Your task to perform on an android device: remove spam from my inbox in the gmail app Image 0: 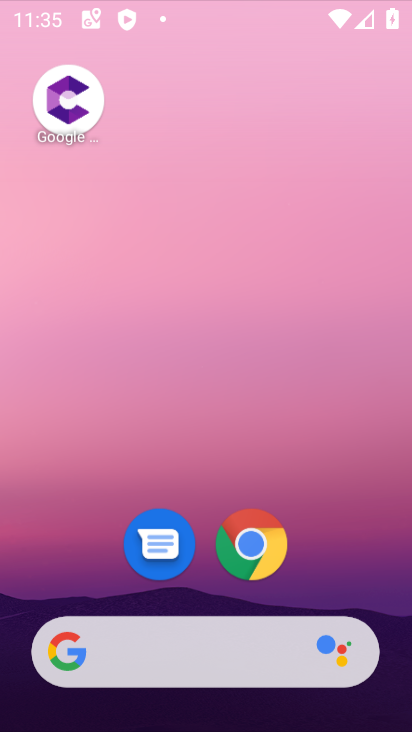
Step 0: click (236, 187)
Your task to perform on an android device: remove spam from my inbox in the gmail app Image 1: 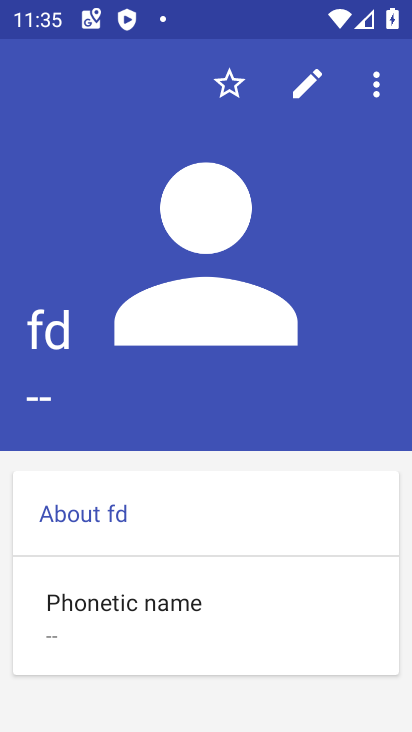
Step 1: press back button
Your task to perform on an android device: remove spam from my inbox in the gmail app Image 2: 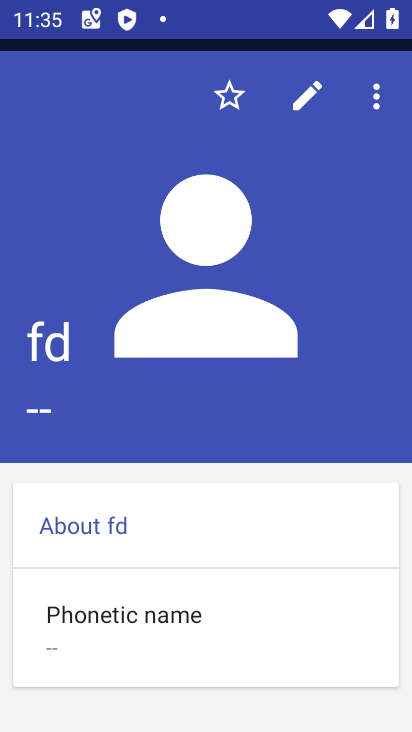
Step 2: press back button
Your task to perform on an android device: remove spam from my inbox in the gmail app Image 3: 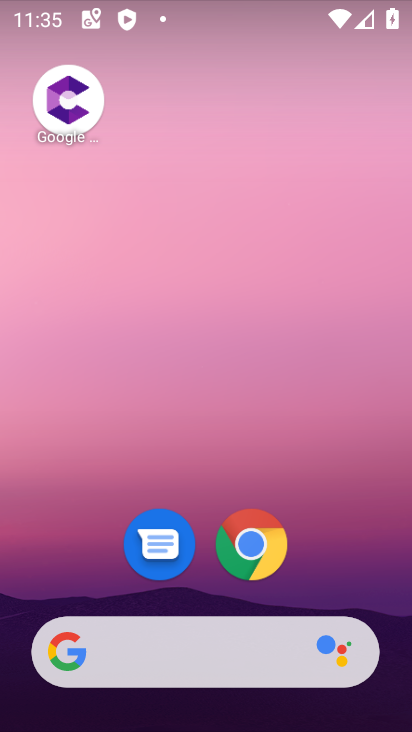
Step 3: drag from (323, 674) to (186, 98)
Your task to perform on an android device: remove spam from my inbox in the gmail app Image 4: 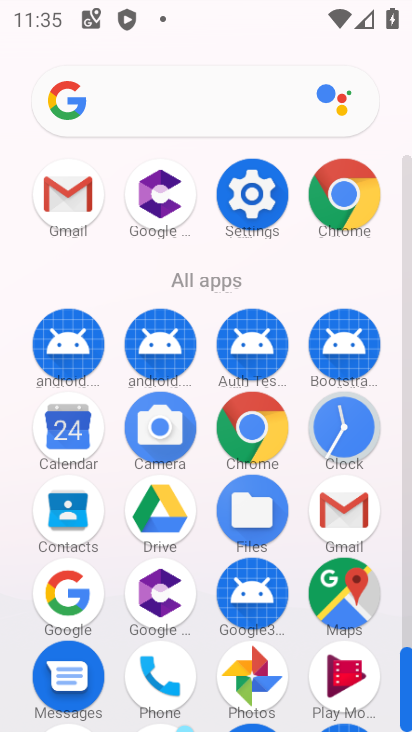
Step 4: drag from (274, 584) to (196, 127)
Your task to perform on an android device: remove spam from my inbox in the gmail app Image 5: 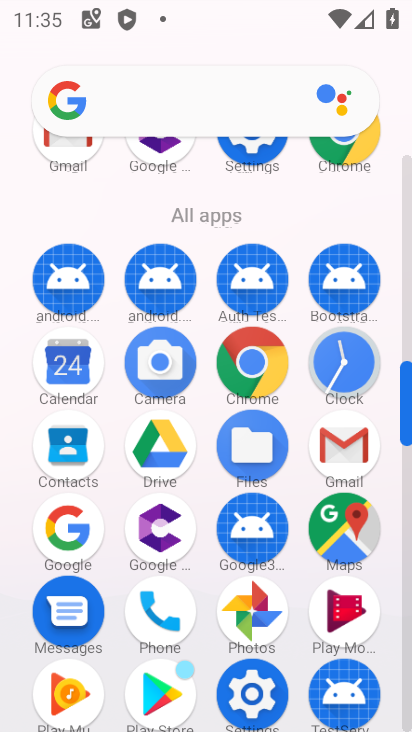
Step 5: click (327, 440)
Your task to perform on an android device: remove spam from my inbox in the gmail app Image 6: 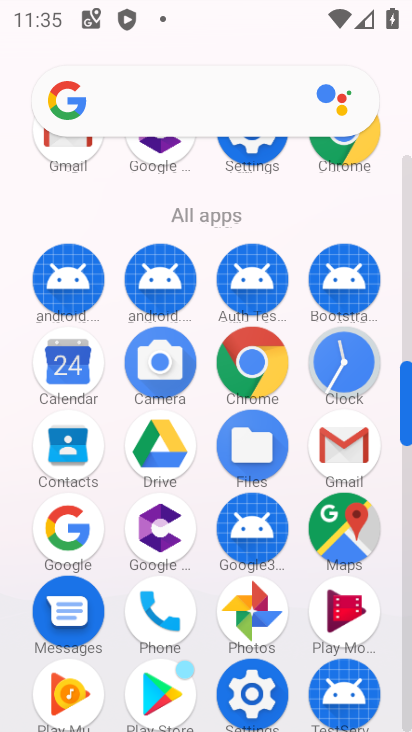
Step 6: click (328, 441)
Your task to perform on an android device: remove spam from my inbox in the gmail app Image 7: 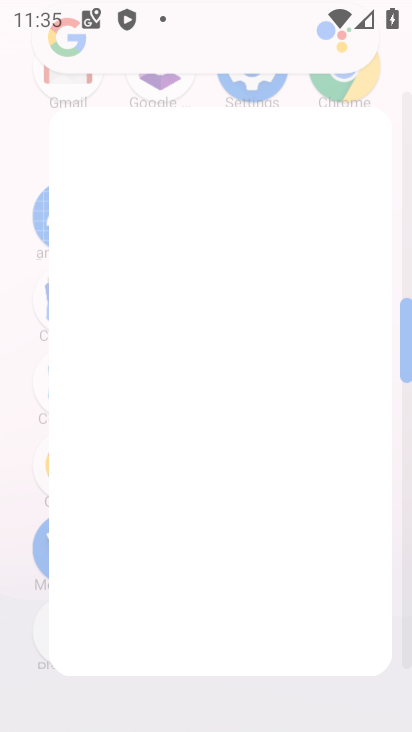
Step 7: click (339, 448)
Your task to perform on an android device: remove spam from my inbox in the gmail app Image 8: 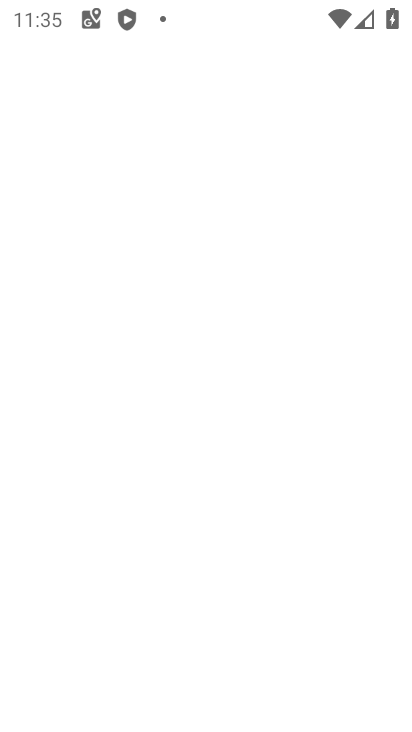
Step 8: click (339, 448)
Your task to perform on an android device: remove spam from my inbox in the gmail app Image 9: 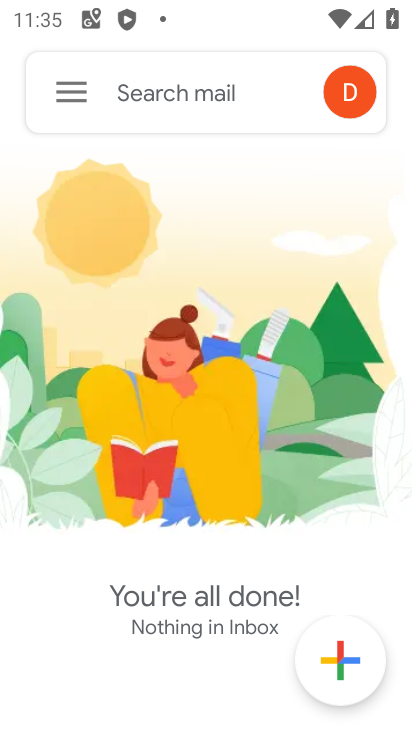
Step 9: click (67, 95)
Your task to perform on an android device: remove spam from my inbox in the gmail app Image 10: 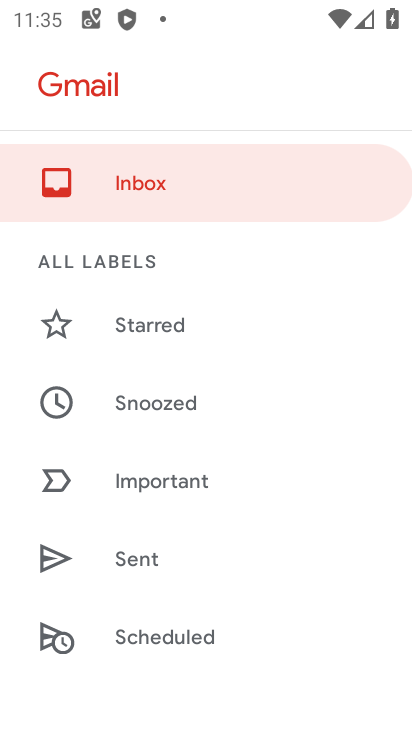
Step 10: click (69, 94)
Your task to perform on an android device: remove spam from my inbox in the gmail app Image 11: 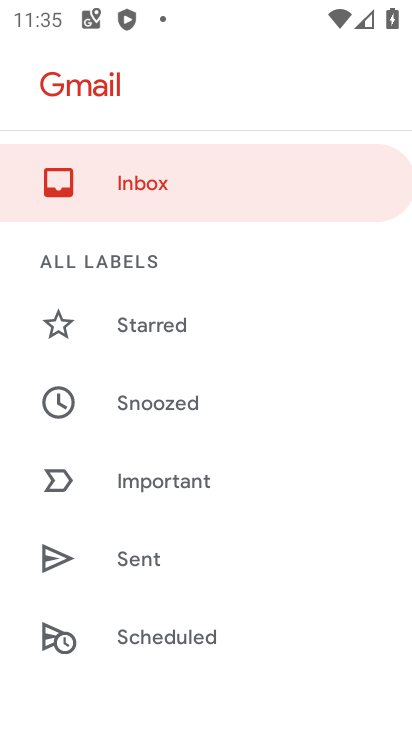
Step 11: click (69, 94)
Your task to perform on an android device: remove spam from my inbox in the gmail app Image 12: 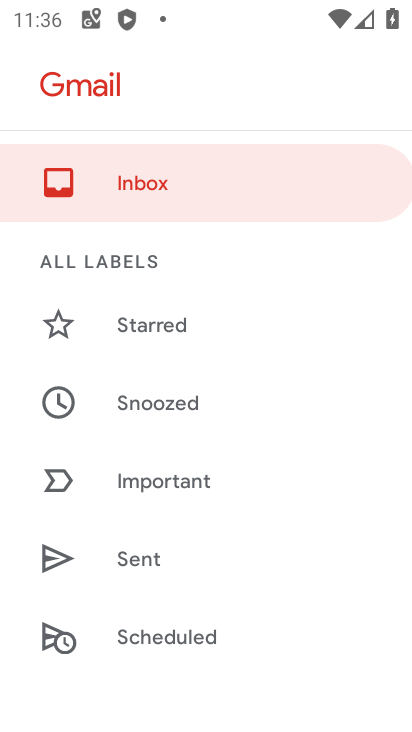
Step 12: drag from (182, 577) to (179, 269)
Your task to perform on an android device: remove spam from my inbox in the gmail app Image 13: 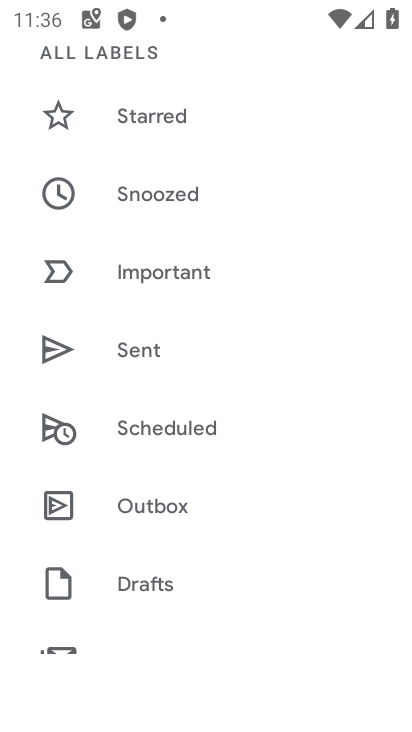
Step 13: drag from (220, 512) to (239, 206)
Your task to perform on an android device: remove spam from my inbox in the gmail app Image 14: 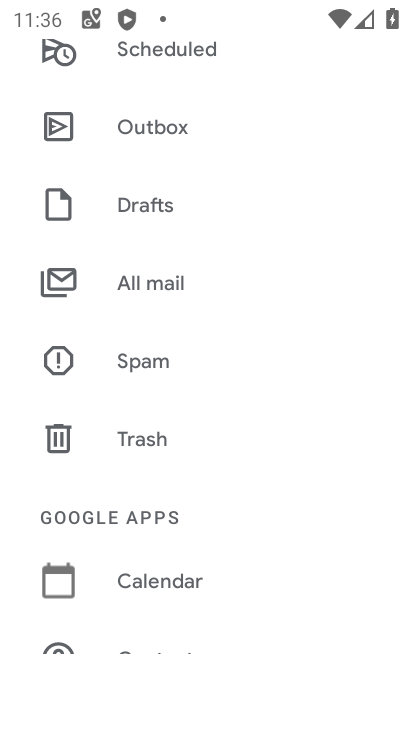
Step 14: drag from (238, 530) to (238, 139)
Your task to perform on an android device: remove spam from my inbox in the gmail app Image 15: 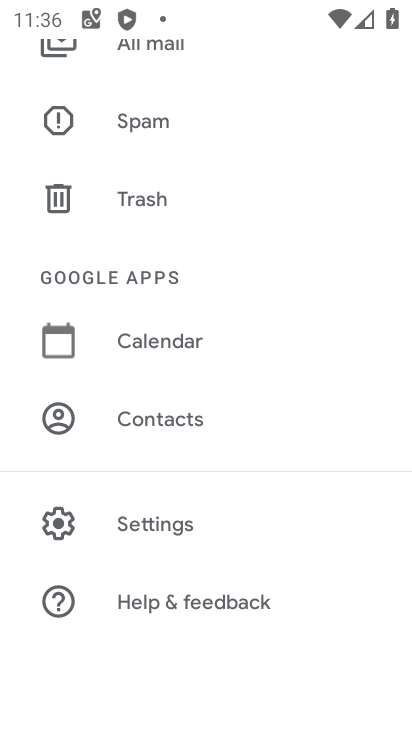
Step 15: click (132, 128)
Your task to perform on an android device: remove spam from my inbox in the gmail app Image 16: 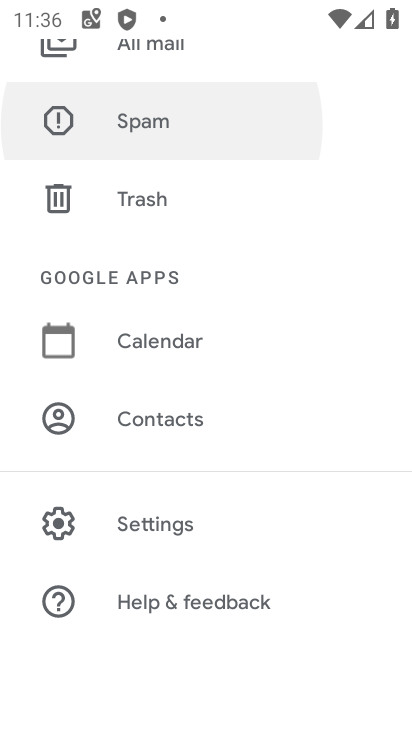
Step 16: click (131, 127)
Your task to perform on an android device: remove spam from my inbox in the gmail app Image 17: 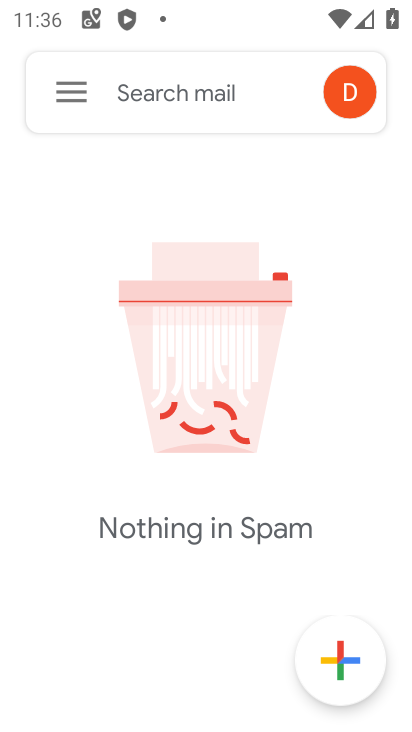
Step 17: task complete